Your task to perform on an android device: clear history in the chrome app Image 0: 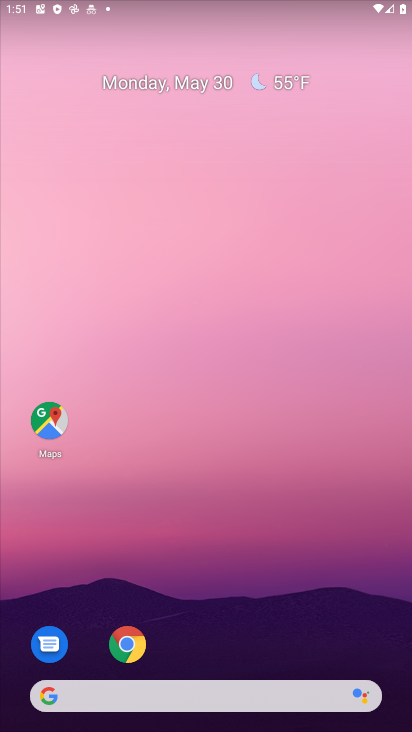
Step 0: click (129, 652)
Your task to perform on an android device: clear history in the chrome app Image 1: 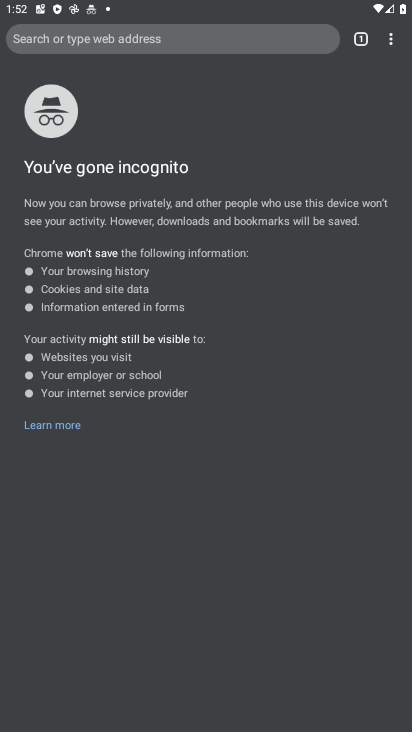
Step 1: click (213, 44)
Your task to perform on an android device: clear history in the chrome app Image 2: 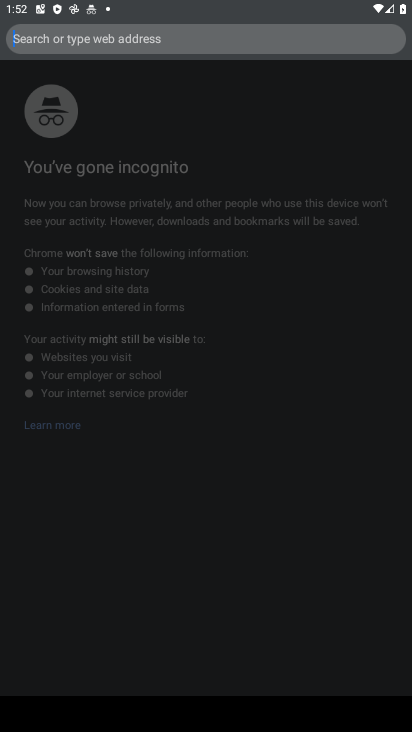
Step 2: click (331, 176)
Your task to perform on an android device: clear history in the chrome app Image 3: 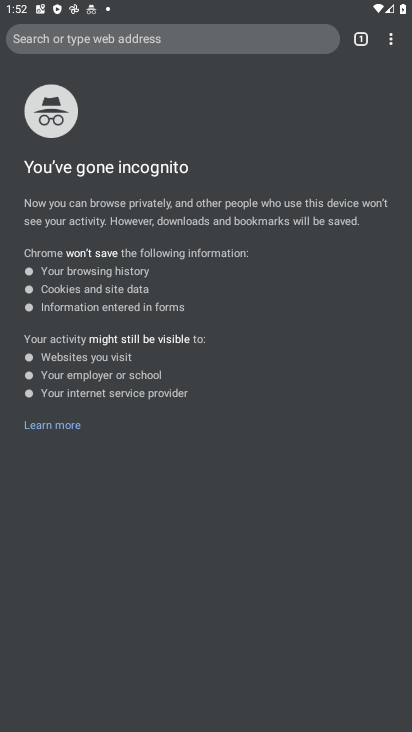
Step 3: click (389, 43)
Your task to perform on an android device: clear history in the chrome app Image 4: 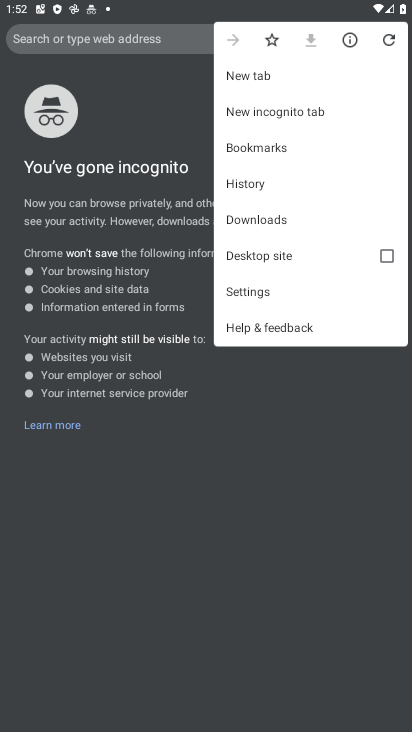
Step 4: click (275, 284)
Your task to perform on an android device: clear history in the chrome app Image 5: 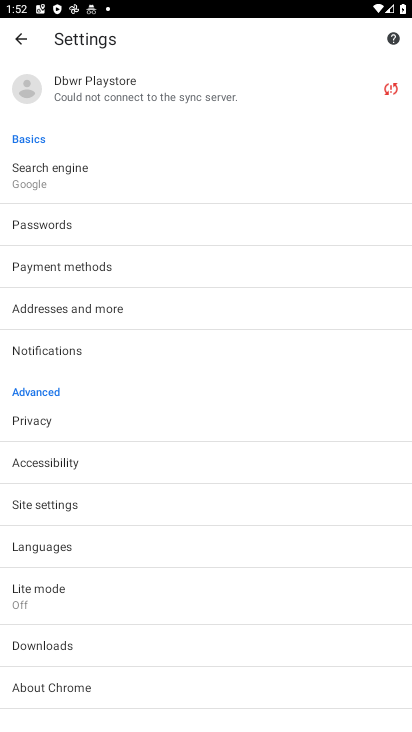
Step 5: task complete